Your task to perform on an android device: see creations saved in the google photos Image 0: 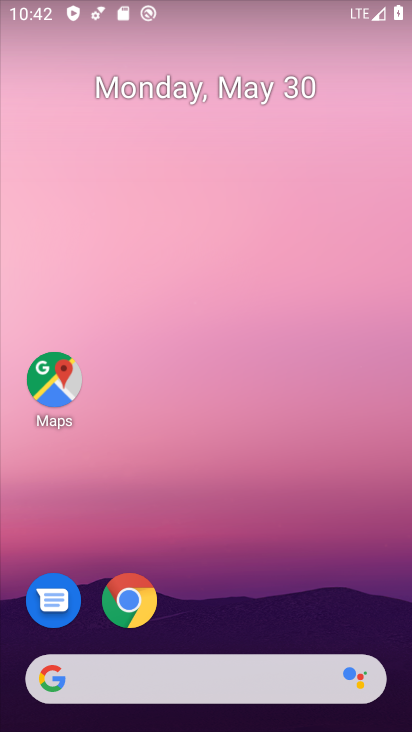
Step 0: drag from (268, 609) to (299, 141)
Your task to perform on an android device: see creations saved in the google photos Image 1: 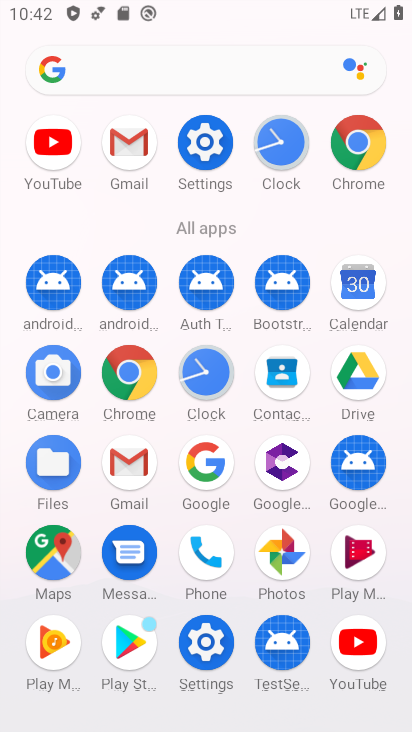
Step 1: click (276, 533)
Your task to perform on an android device: see creations saved in the google photos Image 2: 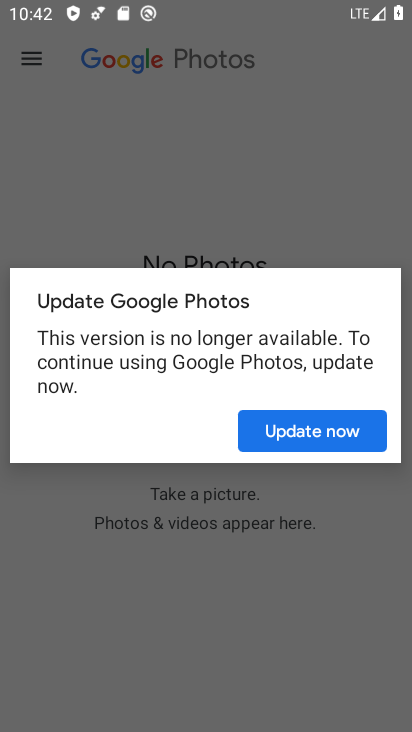
Step 2: click (264, 415)
Your task to perform on an android device: see creations saved in the google photos Image 3: 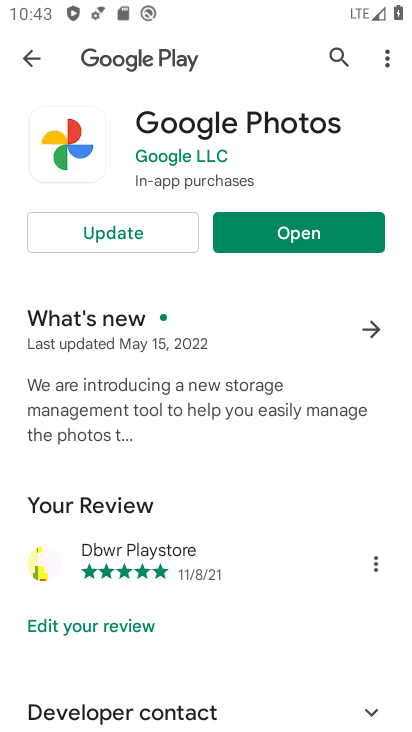
Step 3: click (116, 226)
Your task to perform on an android device: see creations saved in the google photos Image 4: 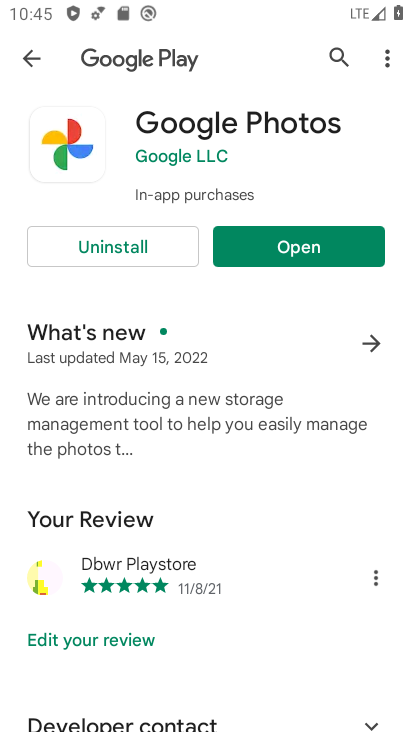
Step 4: click (343, 249)
Your task to perform on an android device: see creations saved in the google photos Image 5: 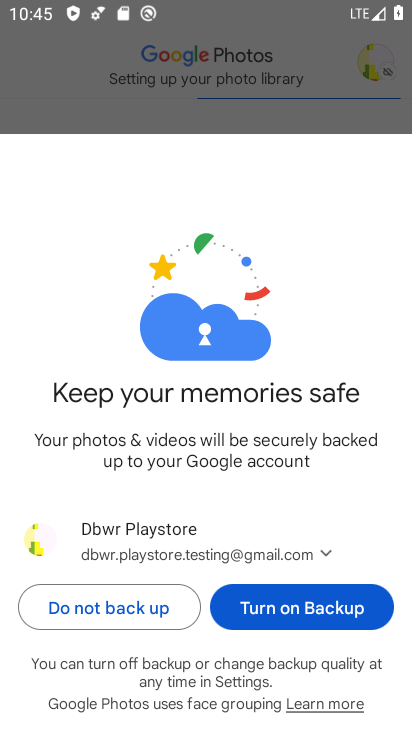
Step 5: click (307, 611)
Your task to perform on an android device: see creations saved in the google photos Image 6: 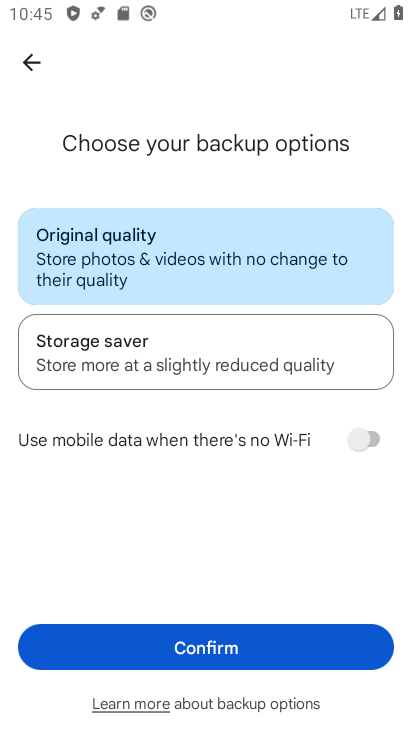
Step 6: click (265, 644)
Your task to perform on an android device: see creations saved in the google photos Image 7: 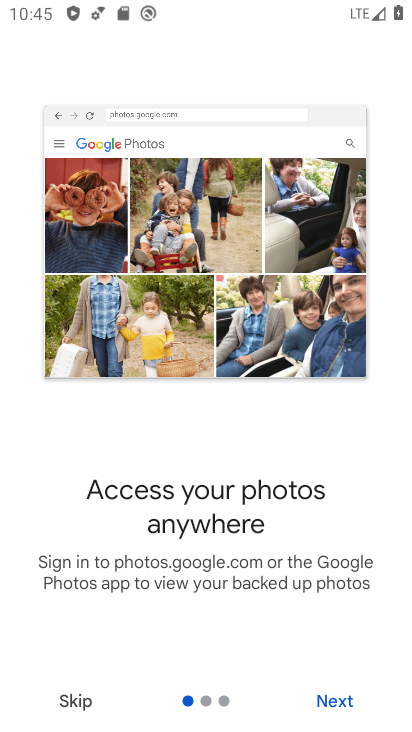
Step 7: click (329, 693)
Your task to perform on an android device: see creations saved in the google photos Image 8: 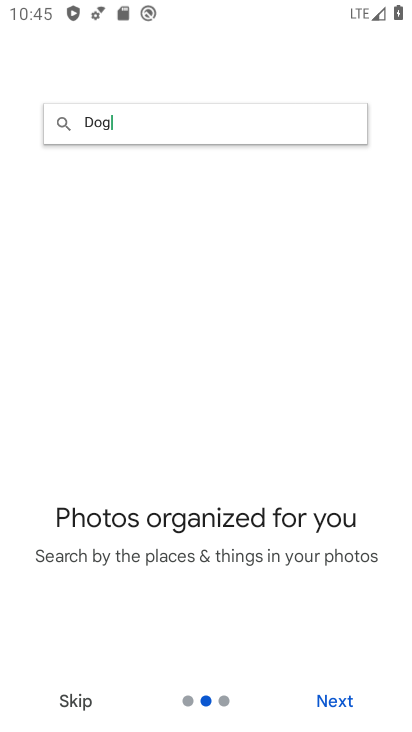
Step 8: click (329, 693)
Your task to perform on an android device: see creations saved in the google photos Image 9: 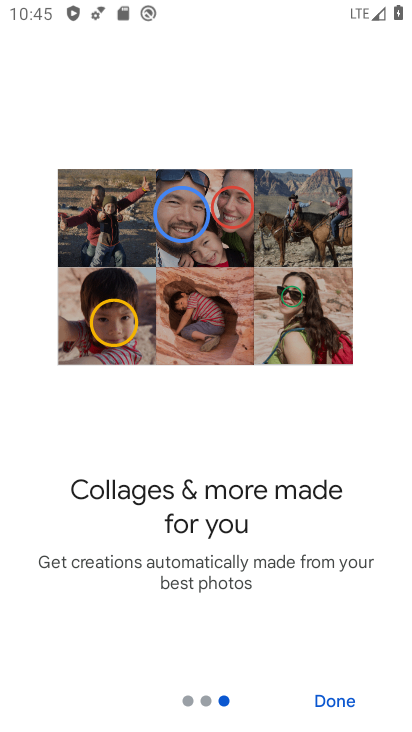
Step 9: click (329, 693)
Your task to perform on an android device: see creations saved in the google photos Image 10: 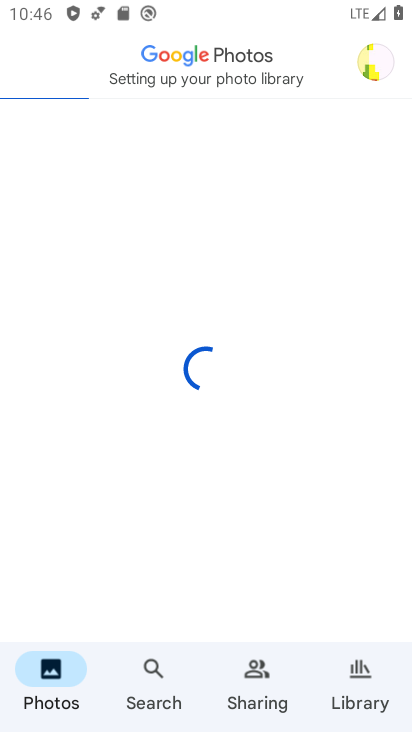
Step 10: click (158, 673)
Your task to perform on an android device: see creations saved in the google photos Image 11: 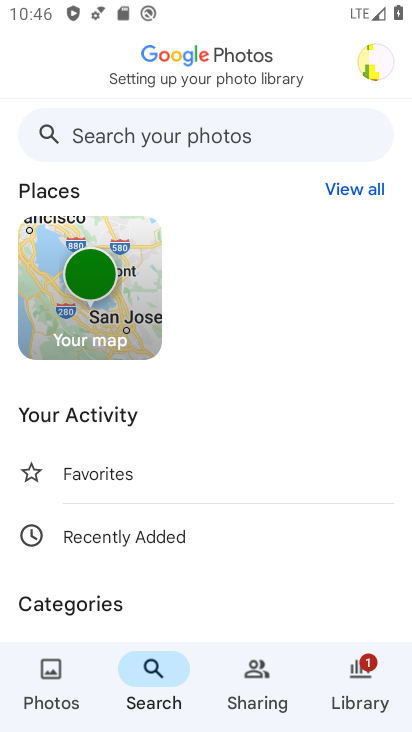
Step 11: click (116, 604)
Your task to perform on an android device: see creations saved in the google photos Image 12: 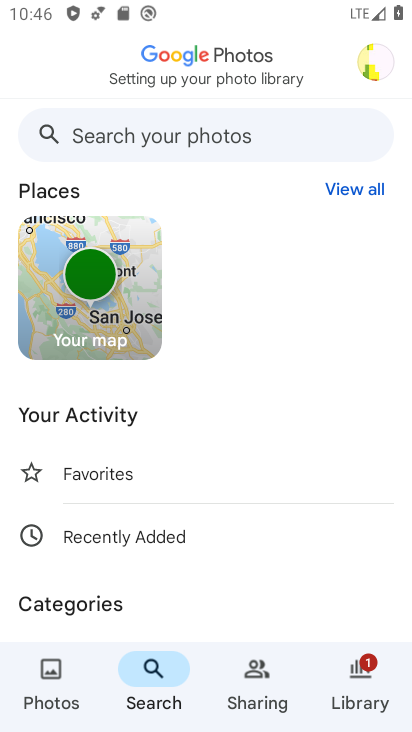
Step 12: click (83, 601)
Your task to perform on an android device: see creations saved in the google photos Image 13: 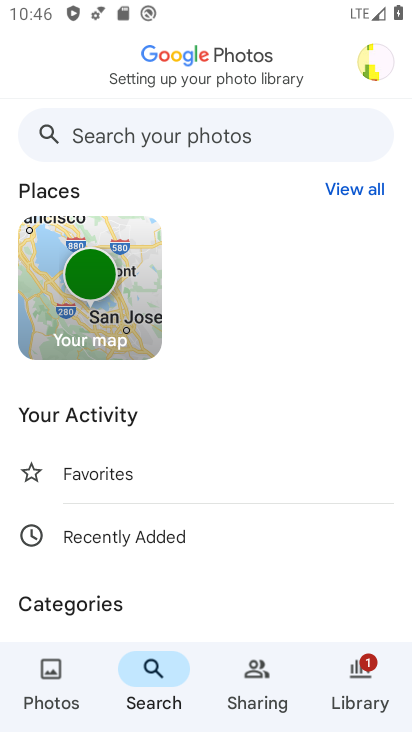
Step 13: drag from (151, 608) to (235, 311)
Your task to perform on an android device: see creations saved in the google photos Image 14: 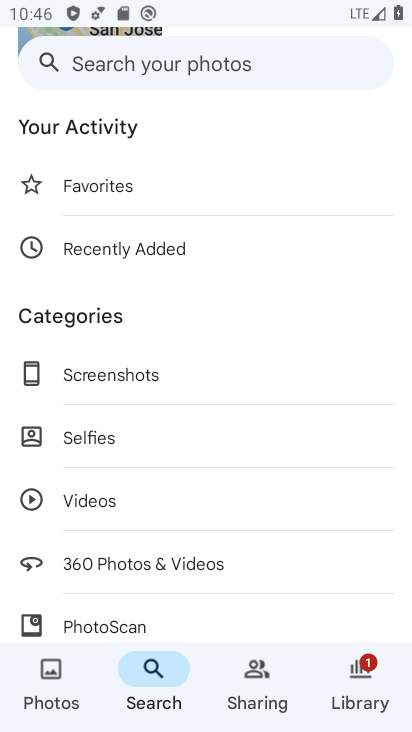
Step 14: click (76, 322)
Your task to perform on an android device: see creations saved in the google photos Image 15: 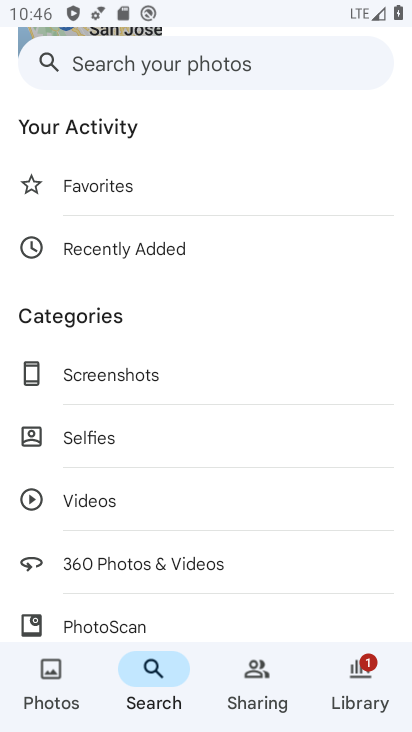
Step 15: drag from (203, 510) to (279, 280)
Your task to perform on an android device: see creations saved in the google photos Image 16: 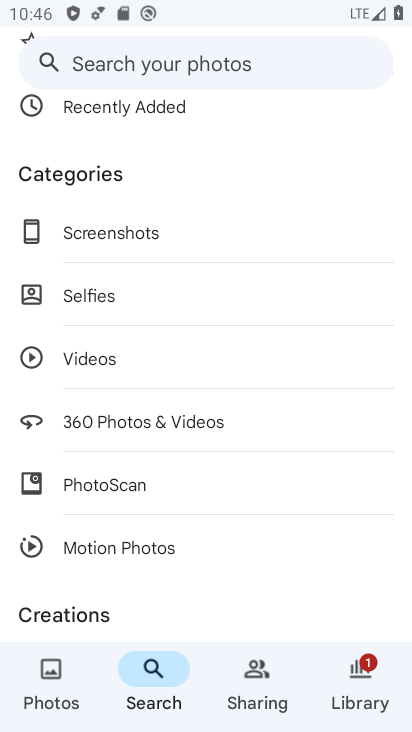
Step 16: click (56, 609)
Your task to perform on an android device: see creations saved in the google photos Image 17: 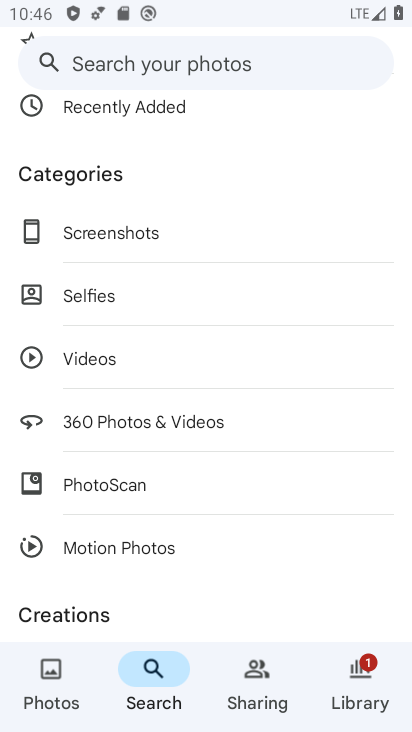
Step 17: click (97, 615)
Your task to perform on an android device: see creations saved in the google photos Image 18: 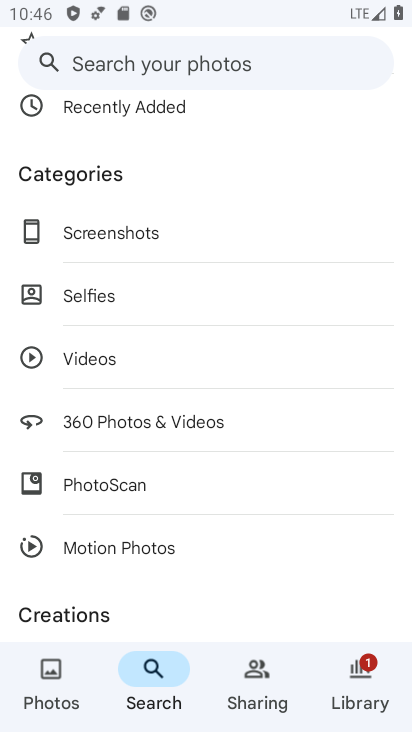
Step 18: drag from (230, 603) to (280, 298)
Your task to perform on an android device: see creations saved in the google photos Image 19: 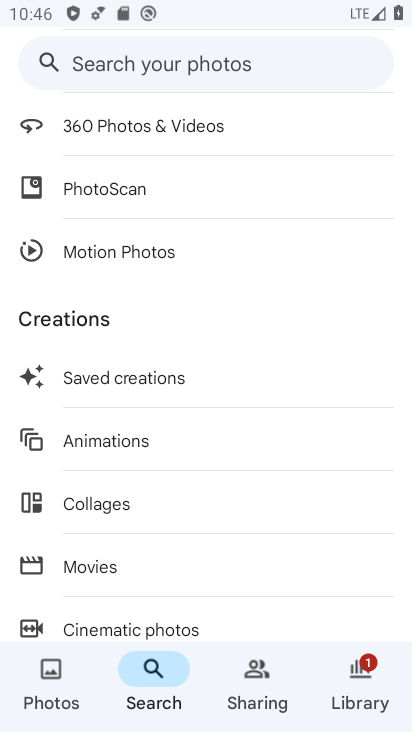
Step 19: drag from (128, 596) to (193, 324)
Your task to perform on an android device: see creations saved in the google photos Image 20: 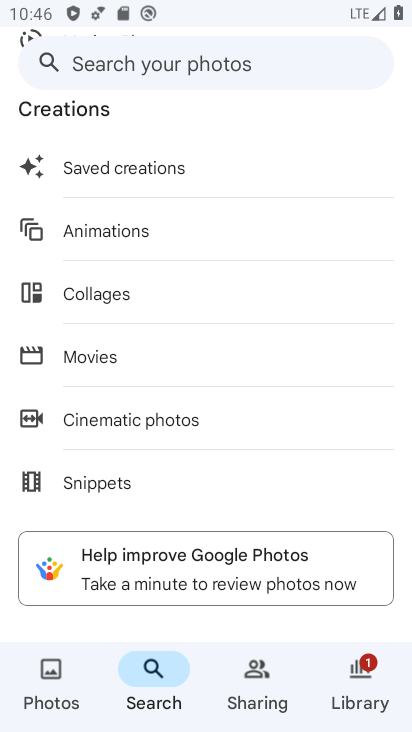
Step 20: click (84, 171)
Your task to perform on an android device: see creations saved in the google photos Image 21: 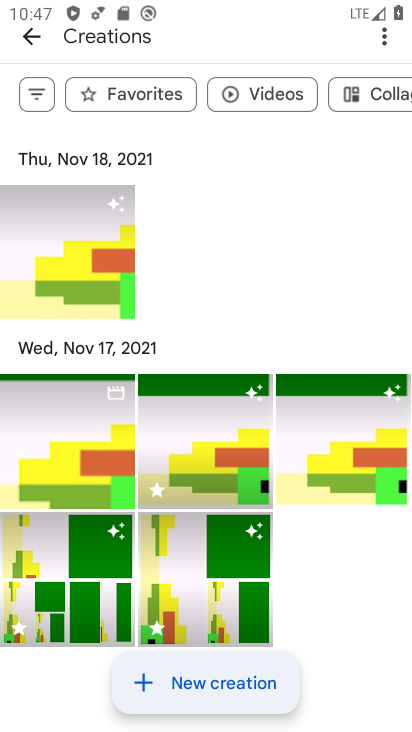
Step 21: task complete